Your task to perform on an android device: When is my next appointment? Image 0: 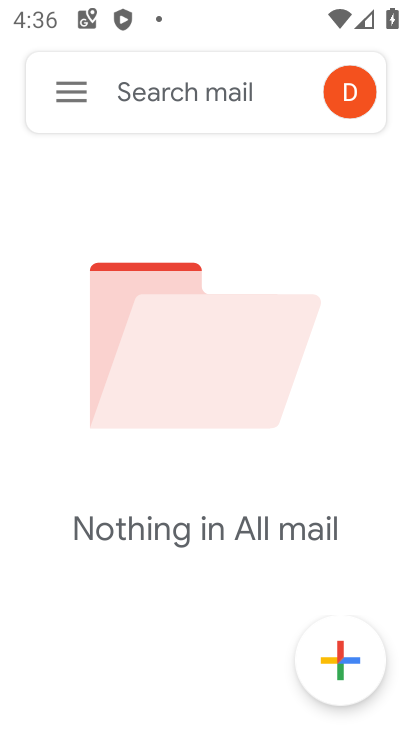
Step 0: press back button
Your task to perform on an android device: When is my next appointment? Image 1: 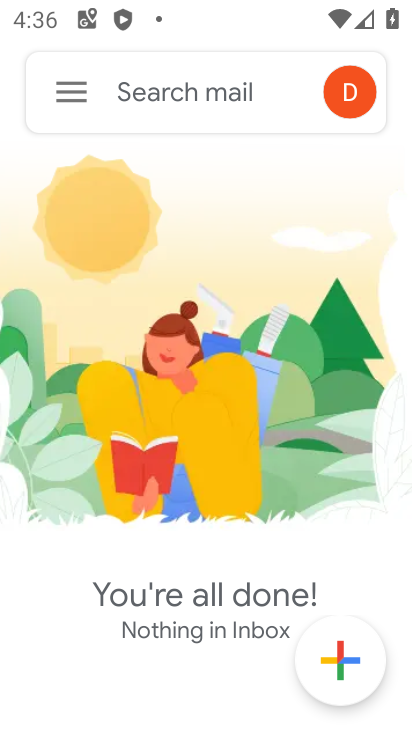
Step 1: press home button
Your task to perform on an android device: When is my next appointment? Image 2: 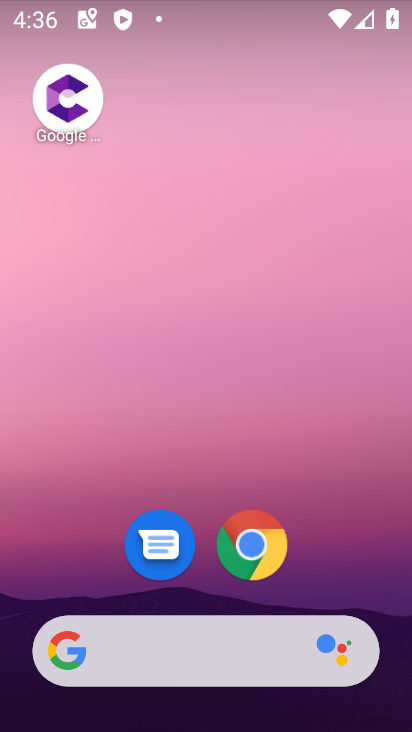
Step 2: drag from (336, 577) to (294, 10)
Your task to perform on an android device: When is my next appointment? Image 3: 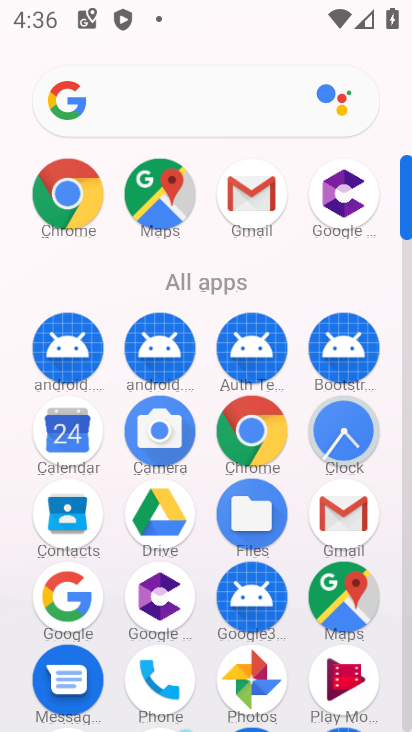
Step 3: drag from (8, 619) to (30, 263)
Your task to perform on an android device: When is my next appointment? Image 4: 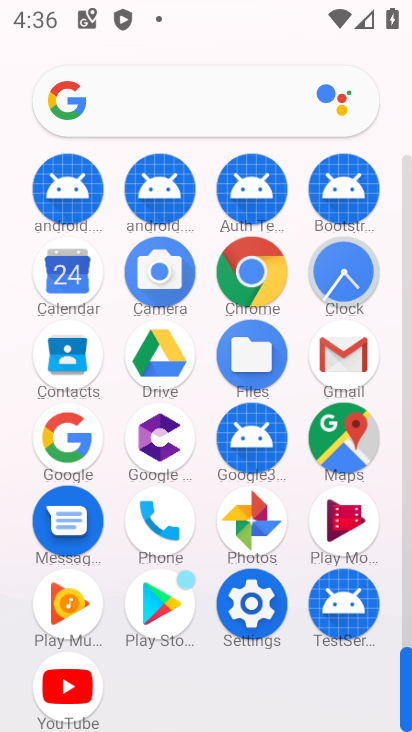
Step 4: click (66, 269)
Your task to perform on an android device: When is my next appointment? Image 5: 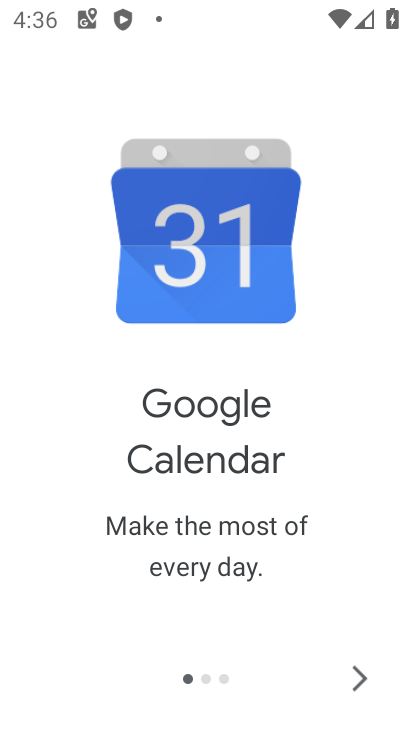
Step 5: click (363, 680)
Your task to perform on an android device: When is my next appointment? Image 6: 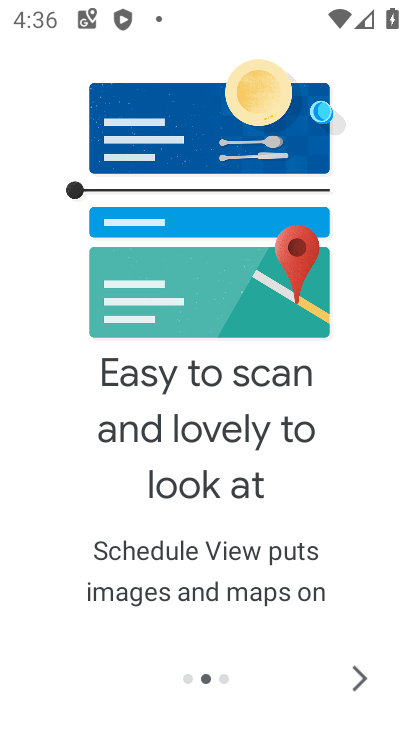
Step 6: click (363, 680)
Your task to perform on an android device: When is my next appointment? Image 7: 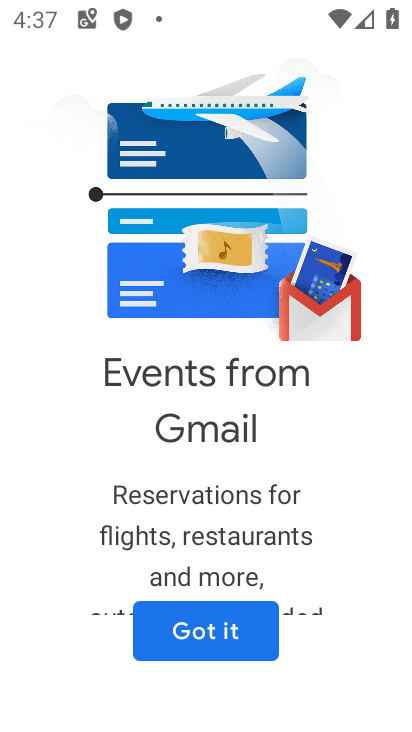
Step 7: click (217, 638)
Your task to perform on an android device: When is my next appointment? Image 8: 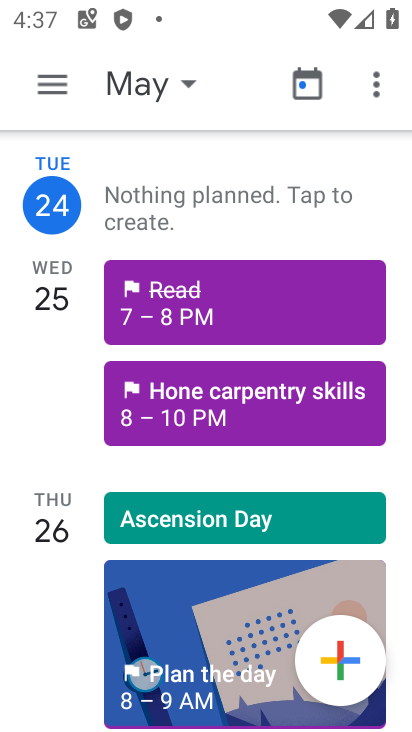
Step 8: click (58, 89)
Your task to perform on an android device: When is my next appointment? Image 9: 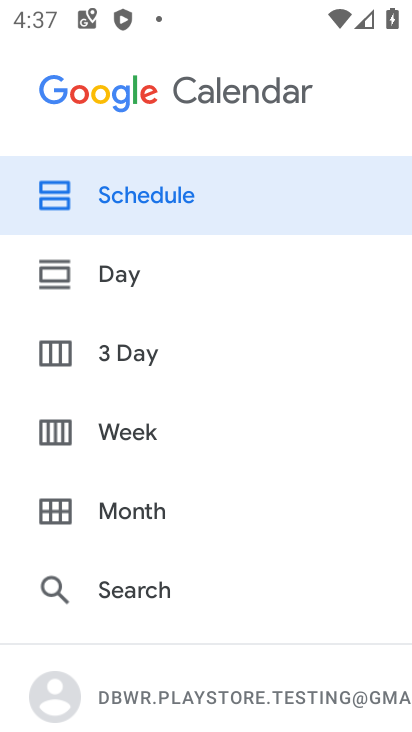
Step 9: click (224, 193)
Your task to perform on an android device: When is my next appointment? Image 10: 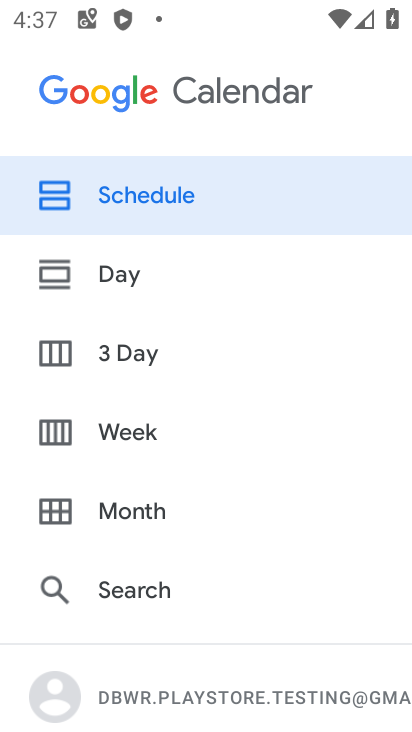
Step 10: click (196, 194)
Your task to perform on an android device: When is my next appointment? Image 11: 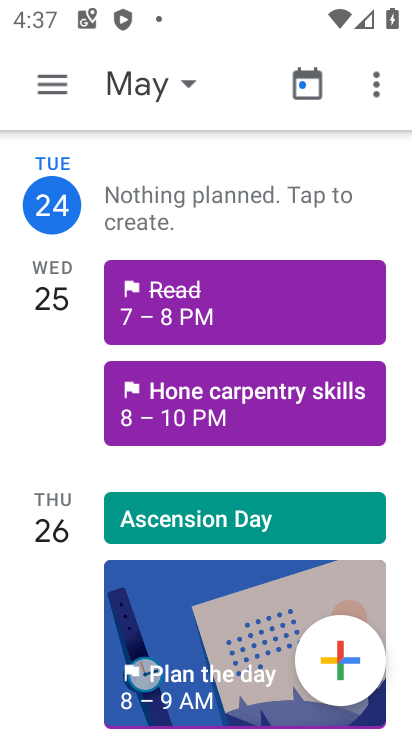
Step 11: task complete